Your task to perform on an android device: turn off smart reply in the gmail app Image 0: 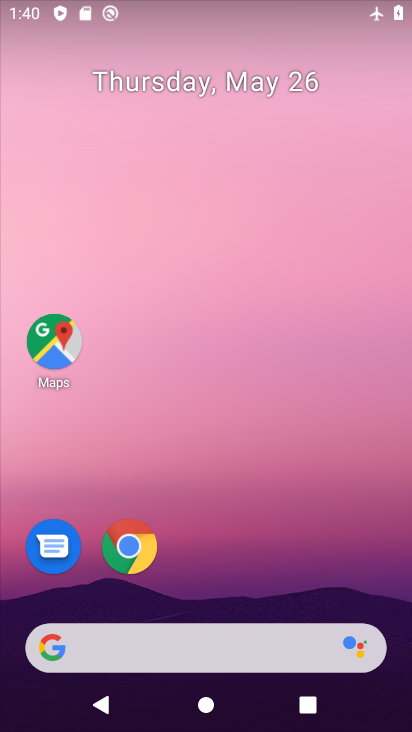
Step 0: click (250, 81)
Your task to perform on an android device: turn off smart reply in the gmail app Image 1: 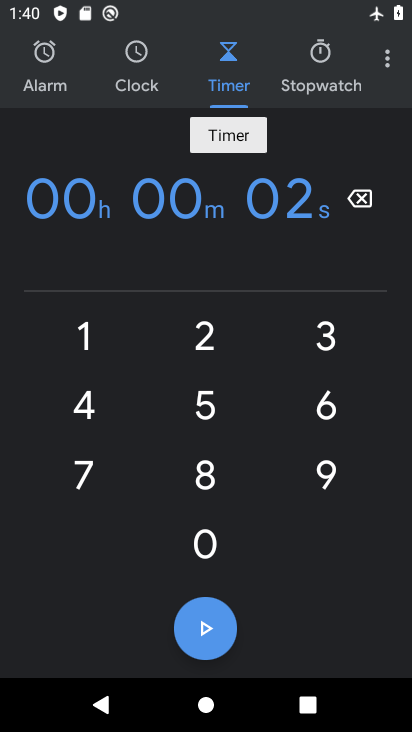
Step 1: press home button
Your task to perform on an android device: turn off smart reply in the gmail app Image 2: 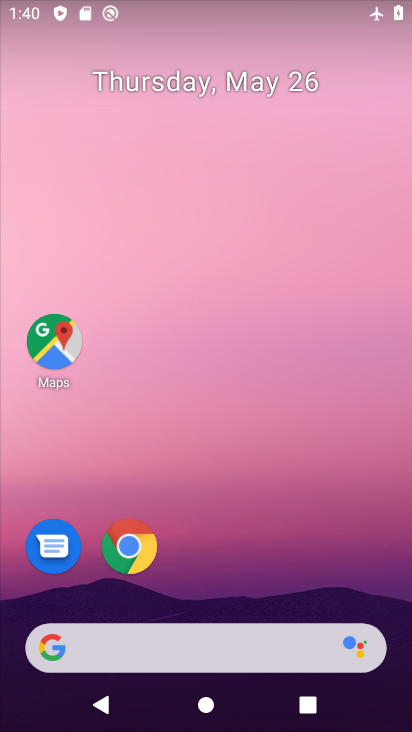
Step 2: drag from (215, 563) to (252, 98)
Your task to perform on an android device: turn off smart reply in the gmail app Image 3: 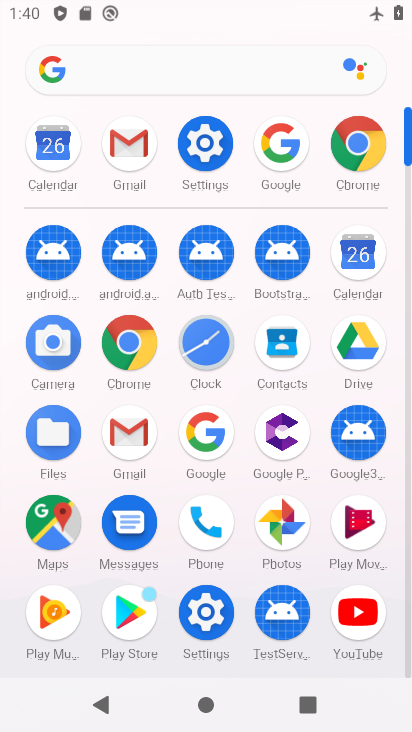
Step 3: click (120, 139)
Your task to perform on an android device: turn off smart reply in the gmail app Image 4: 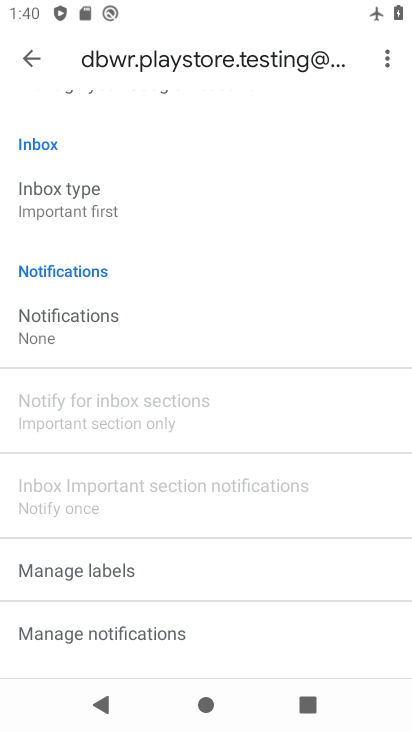
Step 4: press back button
Your task to perform on an android device: turn off smart reply in the gmail app Image 5: 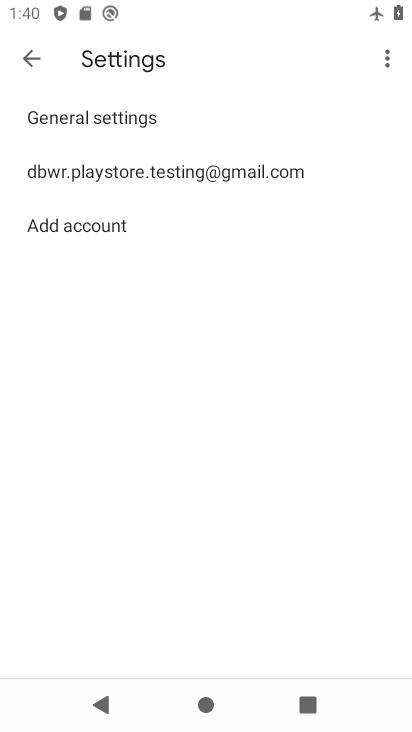
Step 5: press back button
Your task to perform on an android device: turn off smart reply in the gmail app Image 6: 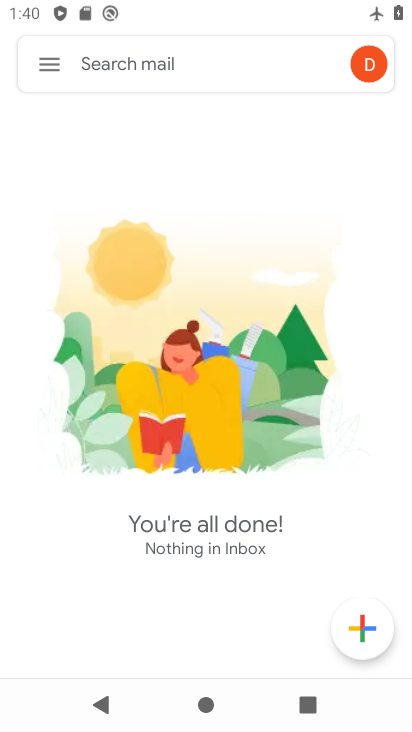
Step 6: click (51, 61)
Your task to perform on an android device: turn off smart reply in the gmail app Image 7: 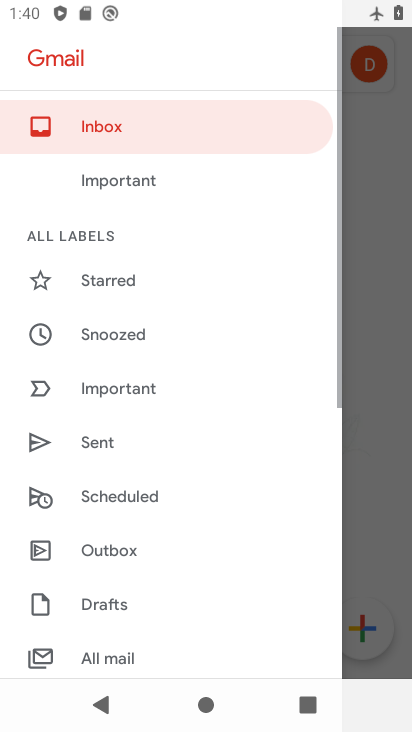
Step 7: drag from (158, 593) to (211, 136)
Your task to perform on an android device: turn off smart reply in the gmail app Image 8: 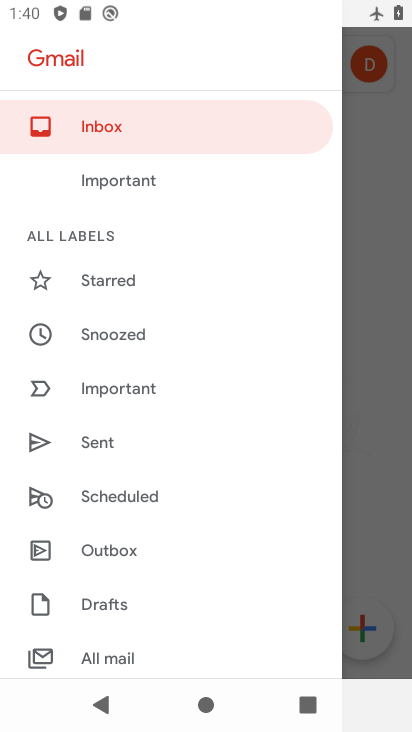
Step 8: drag from (186, 618) to (236, 100)
Your task to perform on an android device: turn off smart reply in the gmail app Image 9: 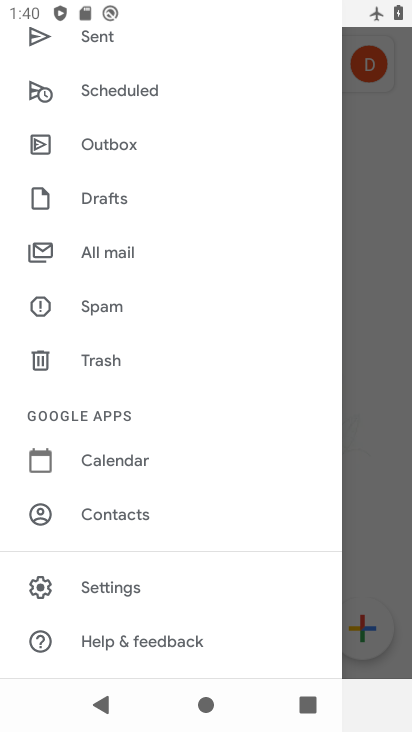
Step 9: click (120, 576)
Your task to perform on an android device: turn off smart reply in the gmail app Image 10: 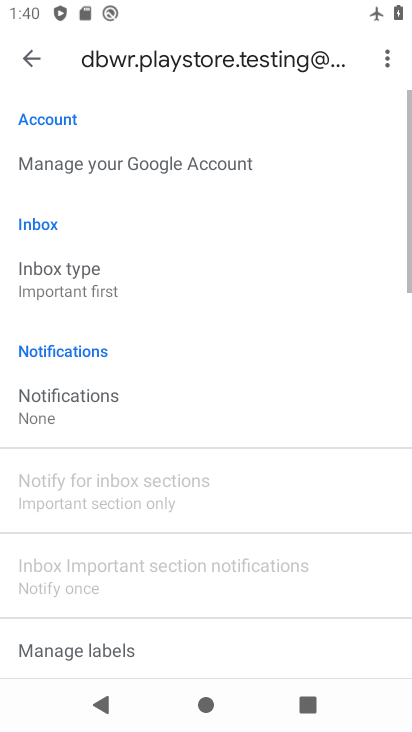
Step 10: drag from (244, 609) to (295, 122)
Your task to perform on an android device: turn off smart reply in the gmail app Image 11: 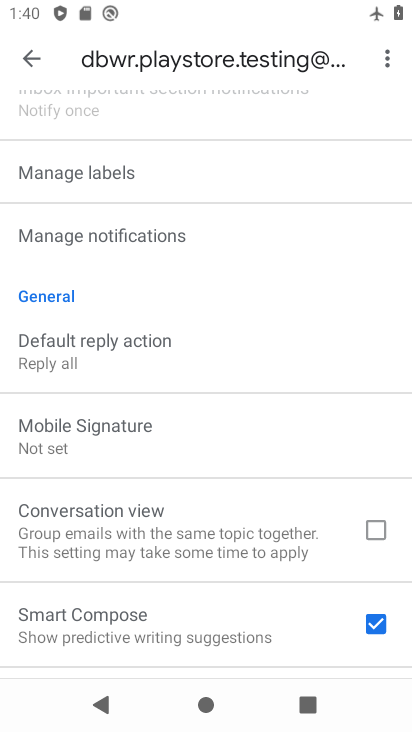
Step 11: drag from (252, 623) to (299, 223)
Your task to perform on an android device: turn off smart reply in the gmail app Image 12: 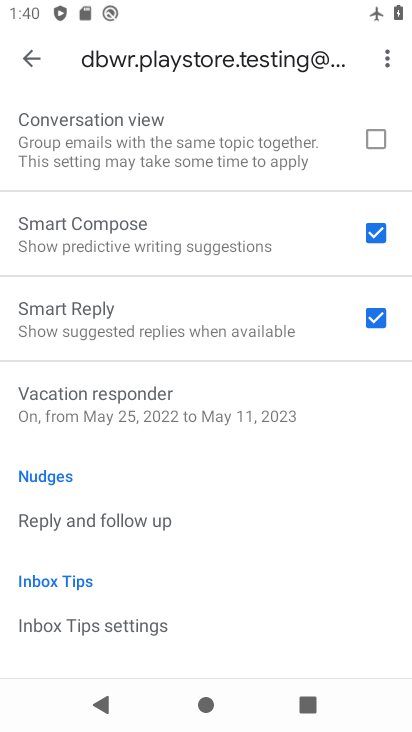
Step 12: click (390, 317)
Your task to perform on an android device: turn off smart reply in the gmail app Image 13: 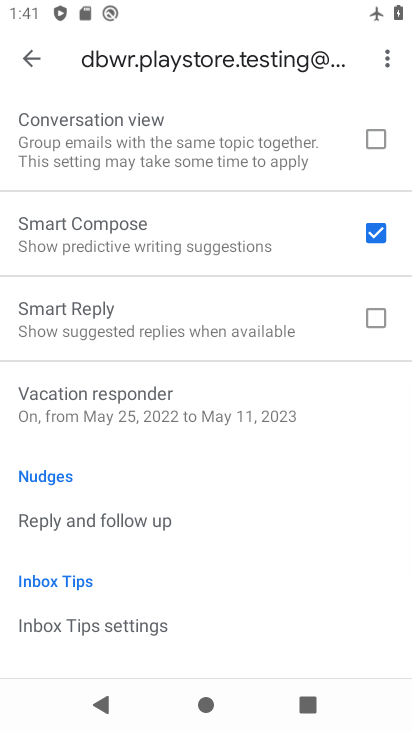
Step 13: task complete